Your task to perform on an android device: check battery use Image 0: 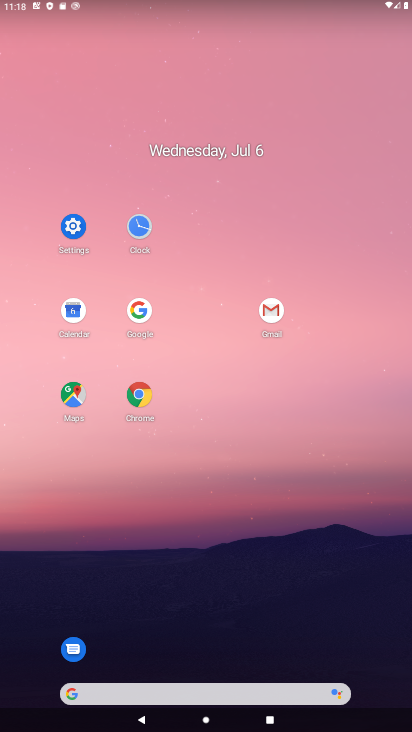
Step 0: click (65, 233)
Your task to perform on an android device: check battery use Image 1: 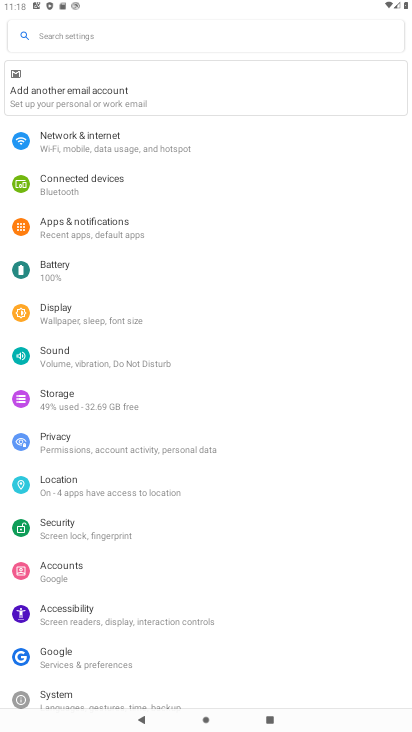
Step 1: click (96, 262)
Your task to perform on an android device: check battery use Image 2: 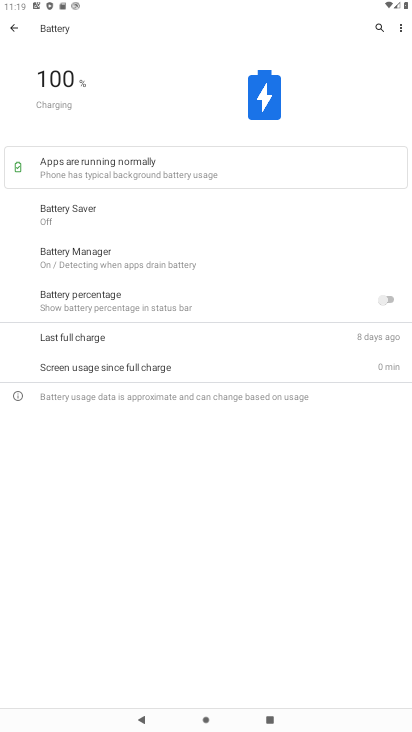
Step 2: task complete